Your task to perform on an android device: Search for "logitech g502" on target, select the first entry, add it to the cart, then select checkout. Image 0: 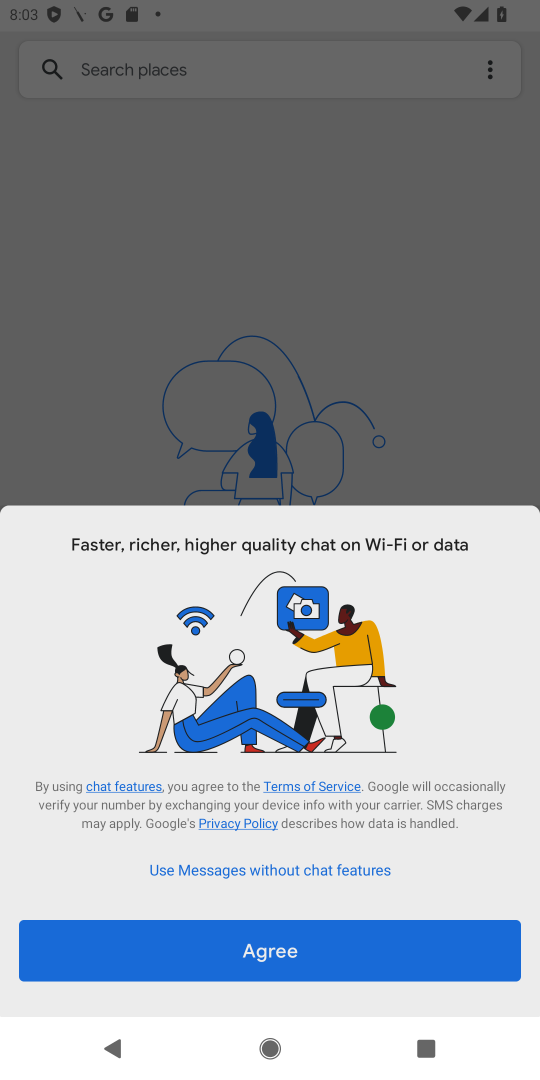
Step 0: press home button
Your task to perform on an android device: Search for "logitech g502" on target, select the first entry, add it to the cart, then select checkout. Image 1: 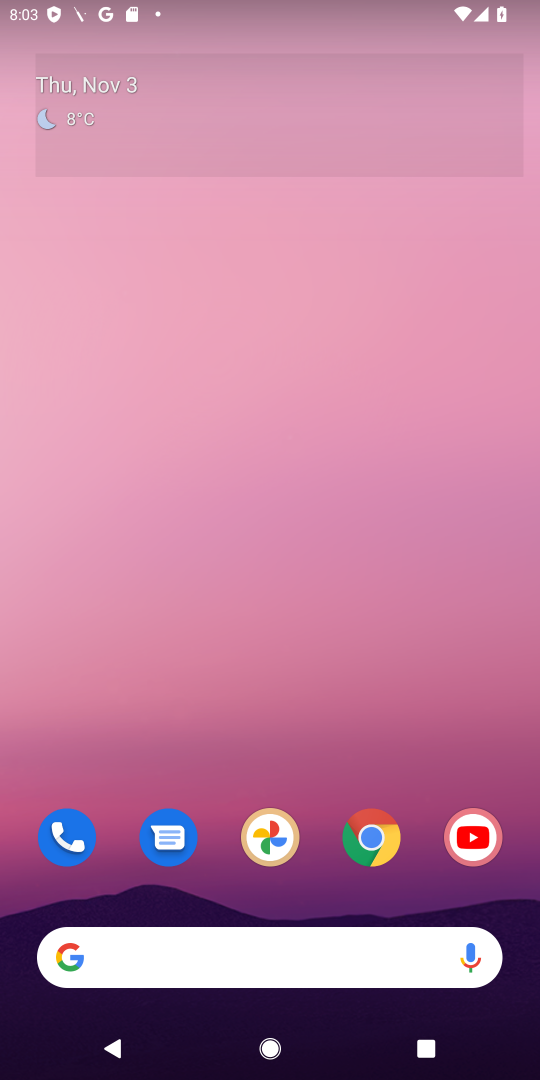
Step 1: click (373, 845)
Your task to perform on an android device: Search for "logitech g502" on target, select the first entry, add it to the cart, then select checkout. Image 2: 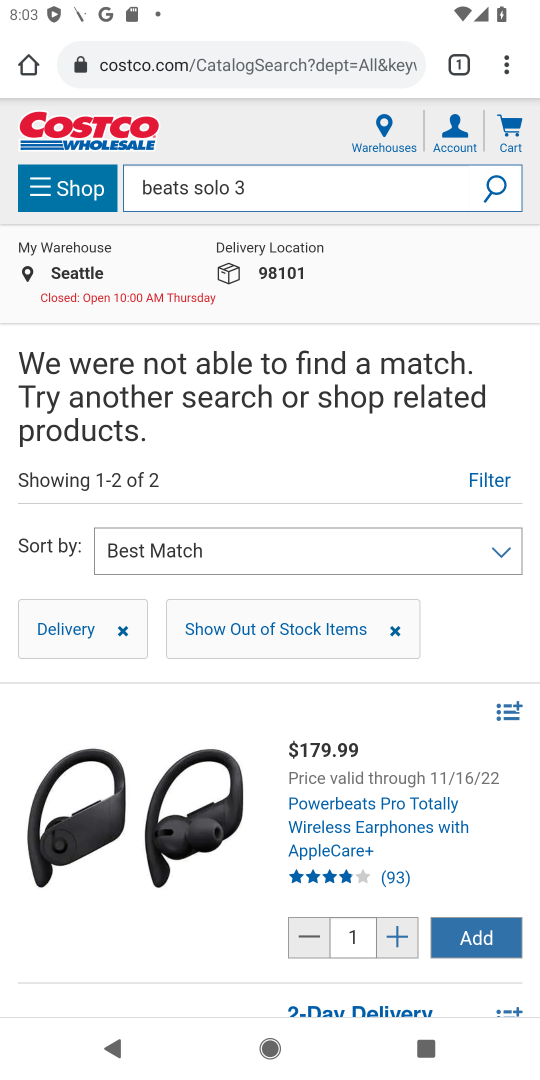
Step 2: click (238, 61)
Your task to perform on an android device: Search for "logitech g502" on target, select the first entry, add it to the cart, then select checkout. Image 3: 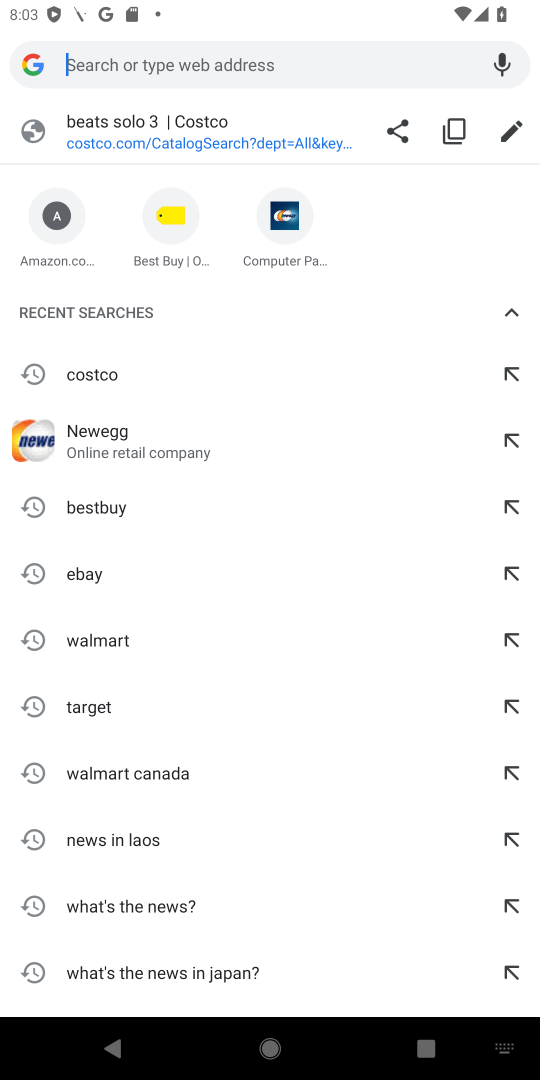
Step 3: click (75, 705)
Your task to perform on an android device: Search for "logitech g502" on target, select the first entry, add it to the cart, then select checkout. Image 4: 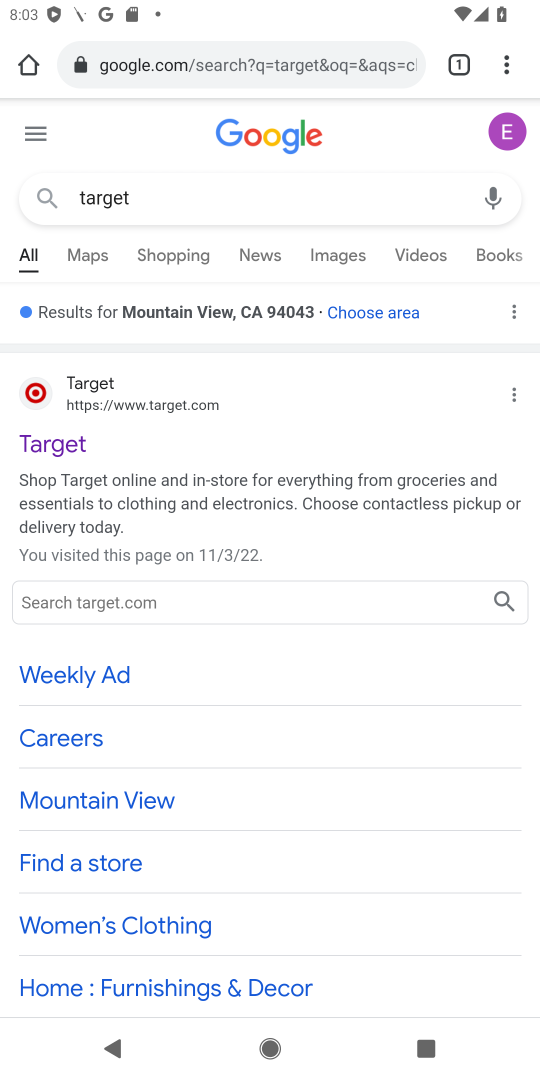
Step 4: click (64, 450)
Your task to perform on an android device: Search for "logitech g502" on target, select the first entry, add it to the cart, then select checkout. Image 5: 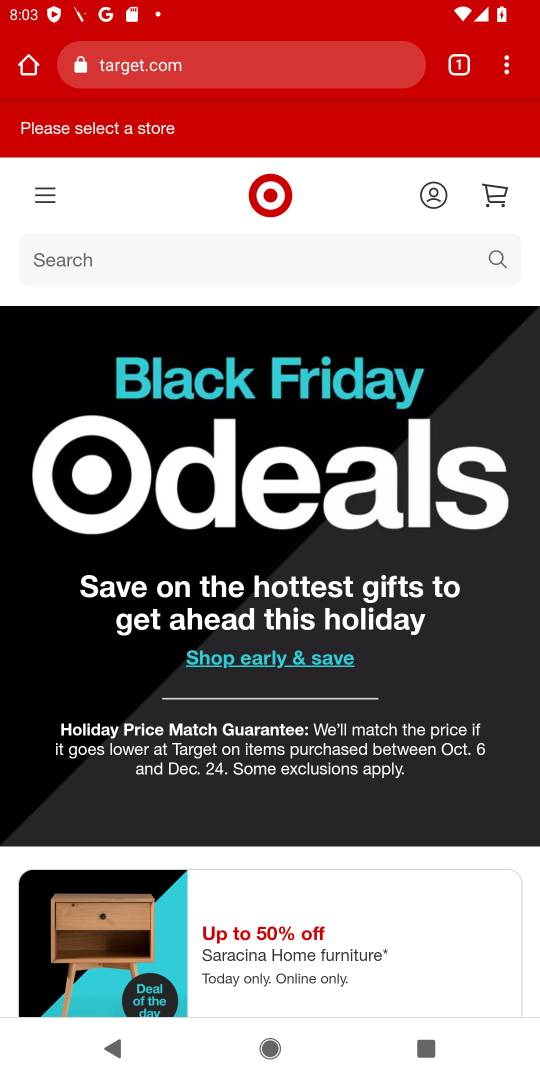
Step 5: click (129, 263)
Your task to perform on an android device: Search for "logitech g502" on target, select the first entry, add it to the cart, then select checkout. Image 6: 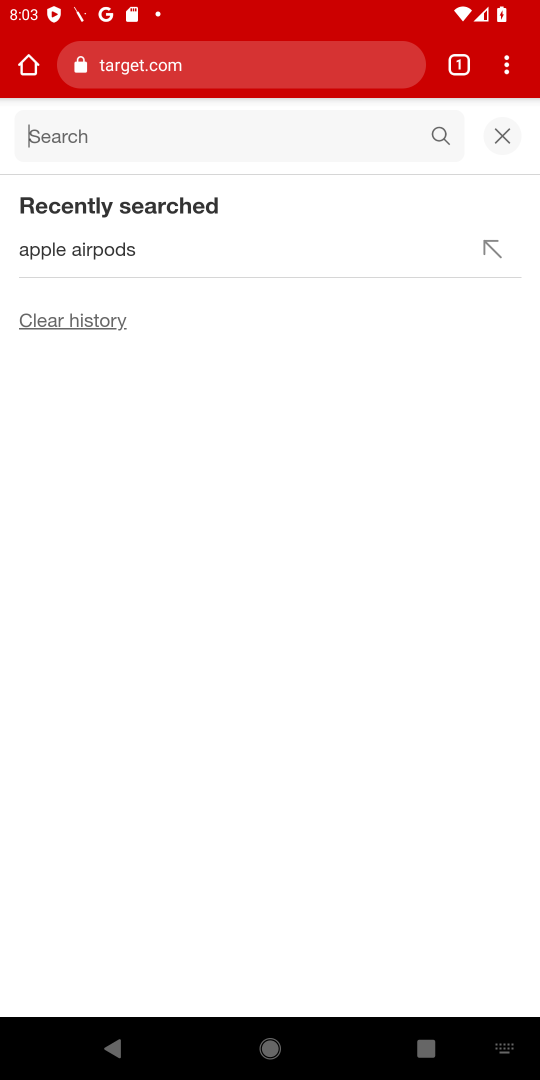
Step 6: type "logitech g502"
Your task to perform on an android device: Search for "logitech g502" on target, select the first entry, add it to the cart, then select checkout. Image 7: 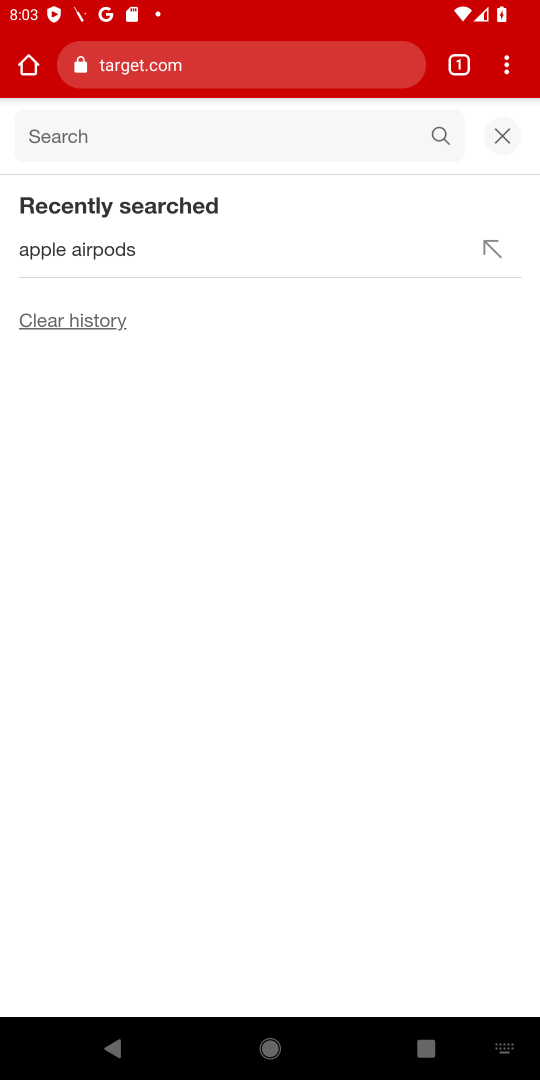
Step 7: press enter
Your task to perform on an android device: Search for "logitech g502" on target, select the first entry, add it to the cart, then select checkout. Image 8: 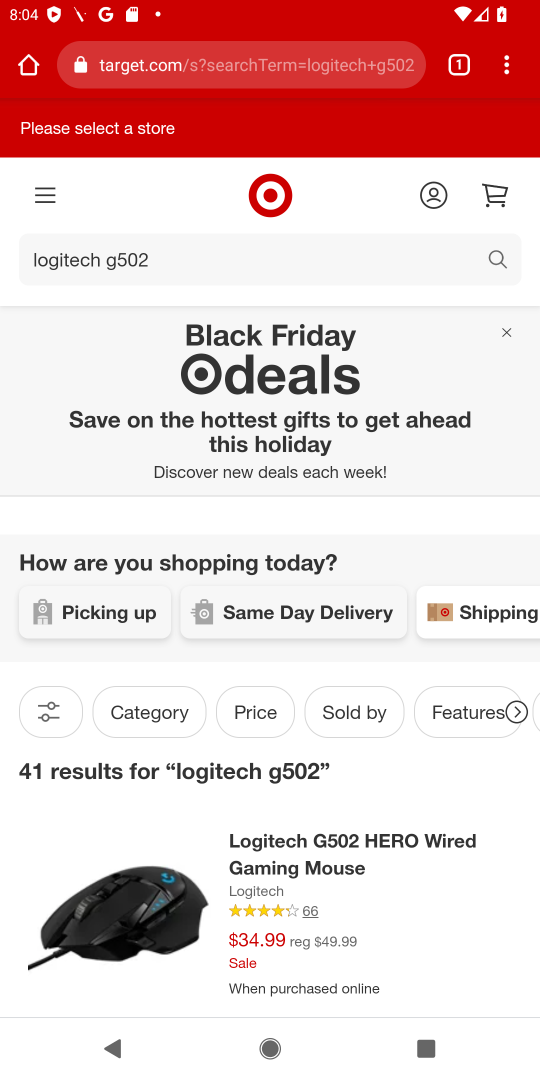
Step 8: click (342, 885)
Your task to perform on an android device: Search for "logitech g502" on target, select the first entry, add it to the cart, then select checkout. Image 9: 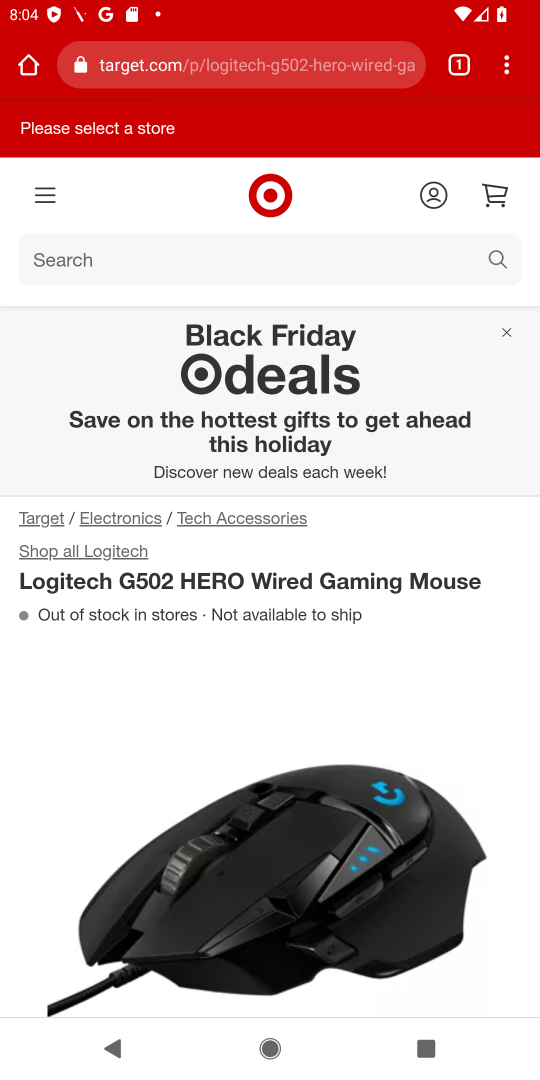
Step 9: drag from (89, 811) to (412, 72)
Your task to perform on an android device: Search for "logitech g502" on target, select the first entry, add it to the cart, then select checkout. Image 10: 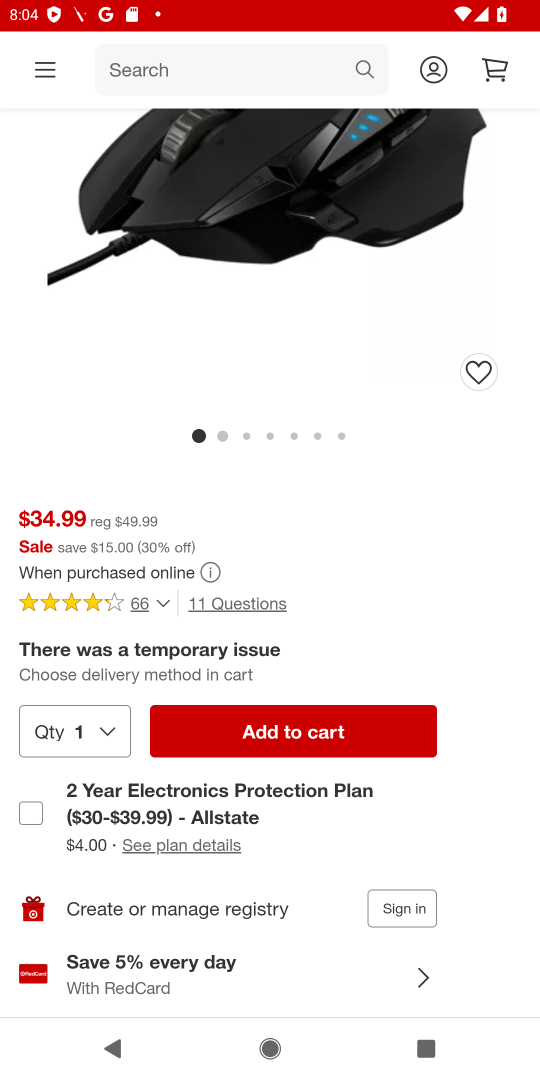
Step 10: click (299, 731)
Your task to perform on an android device: Search for "logitech g502" on target, select the first entry, add it to the cart, then select checkout. Image 11: 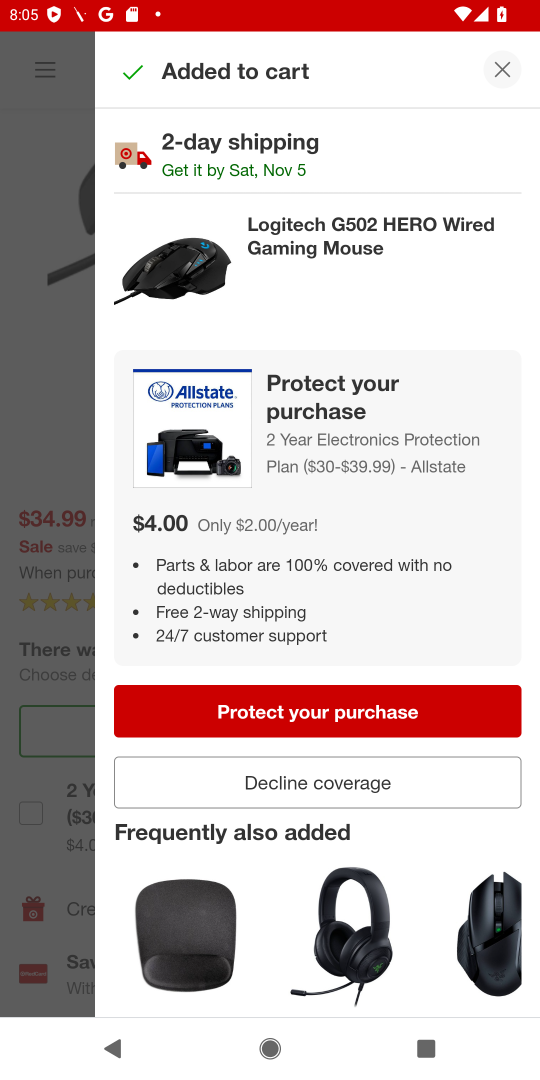
Step 11: click (369, 774)
Your task to perform on an android device: Search for "logitech g502" on target, select the first entry, add it to the cart, then select checkout. Image 12: 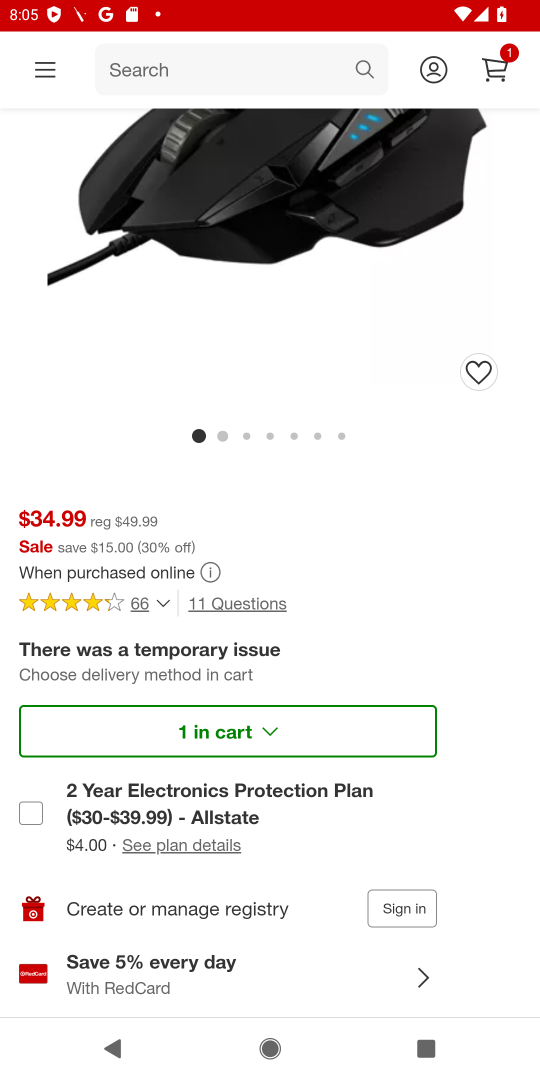
Step 12: drag from (440, 476) to (355, 897)
Your task to perform on an android device: Search for "logitech g502" on target, select the first entry, add it to the cart, then select checkout. Image 13: 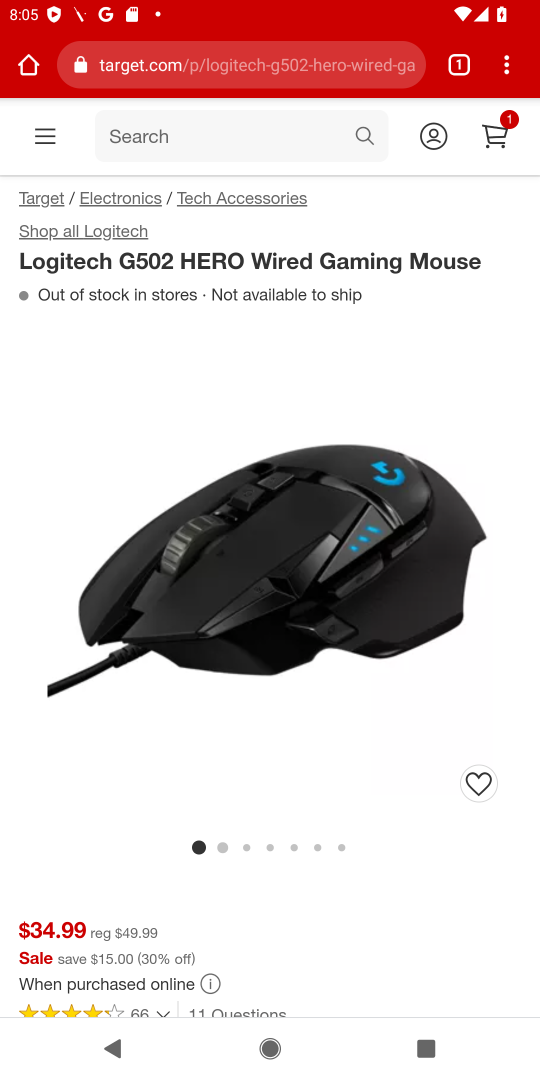
Step 13: click (502, 130)
Your task to perform on an android device: Search for "logitech g502" on target, select the first entry, add it to the cart, then select checkout. Image 14: 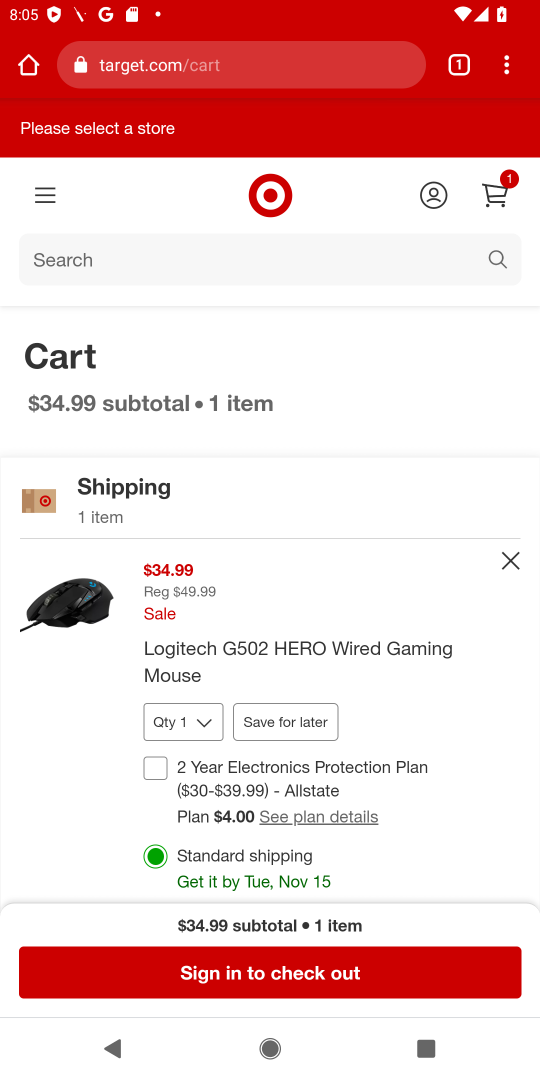
Step 14: click (278, 973)
Your task to perform on an android device: Search for "logitech g502" on target, select the first entry, add it to the cart, then select checkout. Image 15: 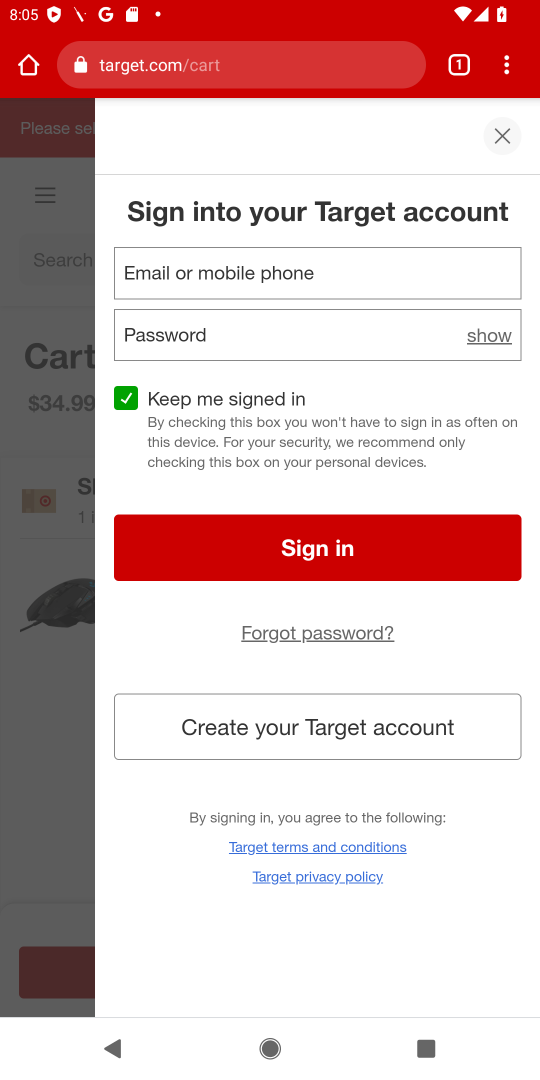
Step 15: task complete